Your task to perform on an android device: View the shopping cart on walmart.com. Search for "logitech g502" on walmart.com, select the first entry, and add it to the cart. Image 0: 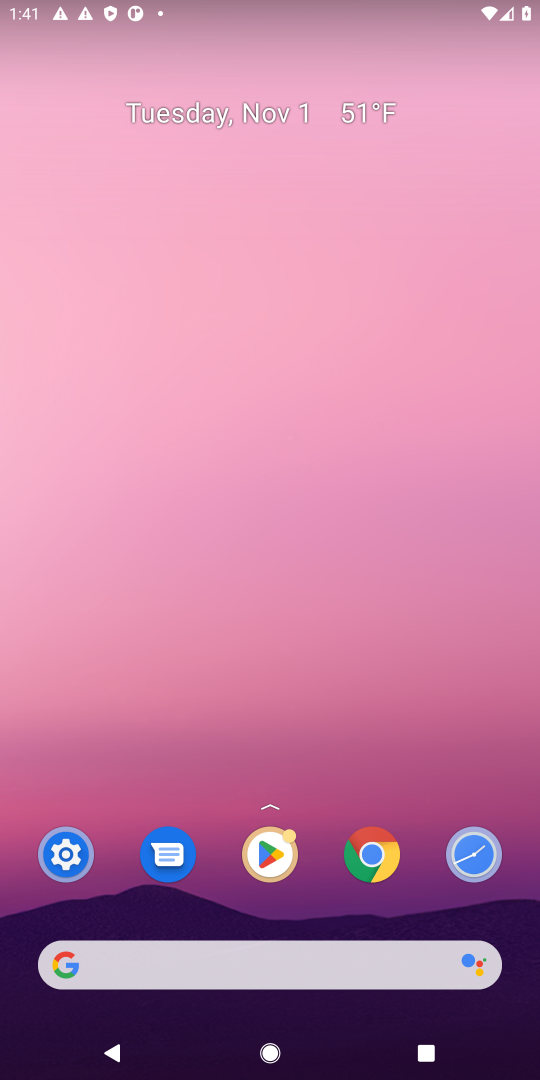
Step 0: click (189, 492)
Your task to perform on an android device: View the shopping cart on walmart.com. Search for "logitech g502" on walmart.com, select the first entry, and add it to the cart. Image 1: 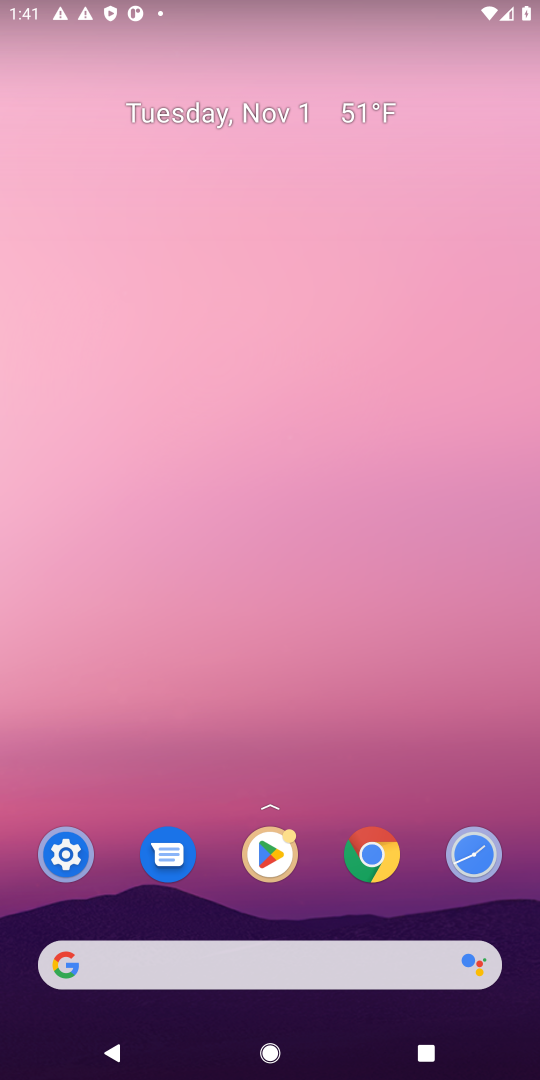
Step 1: click (237, 951)
Your task to perform on an android device: View the shopping cart on walmart.com. Search for "logitech g502" on walmart.com, select the first entry, and add it to the cart. Image 2: 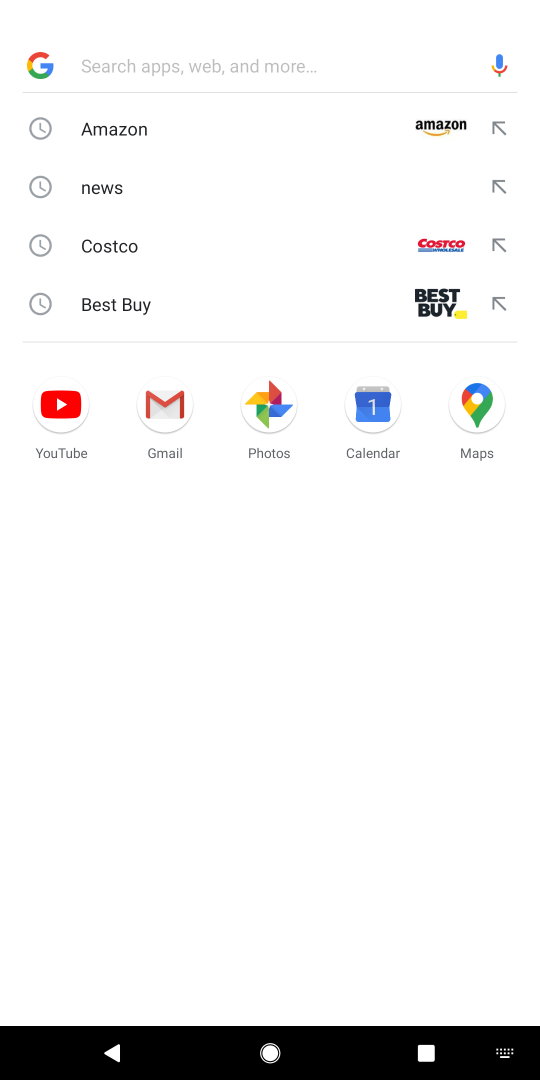
Step 2: click (460, 592)
Your task to perform on an android device: View the shopping cart on walmart.com. Search for "logitech g502" on walmart.com, select the first entry, and add it to the cart. Image 3: 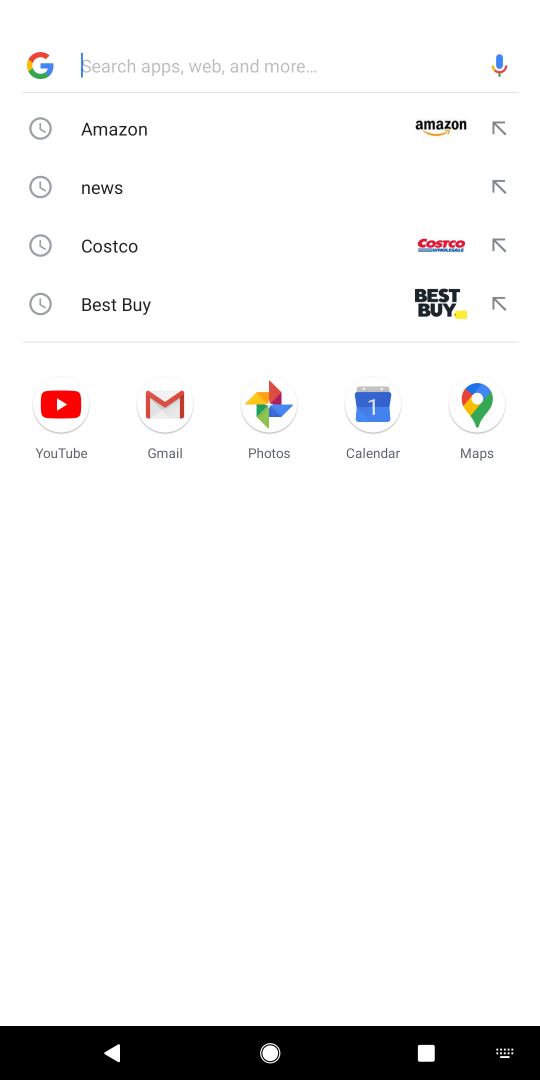
Step 3: type "walmart"
Your task to perform on an android device: View the shopping cart on walmart.com. Search for "logitech g502" on walmart.com, select the first entry, and add it to the cart. Image 4: 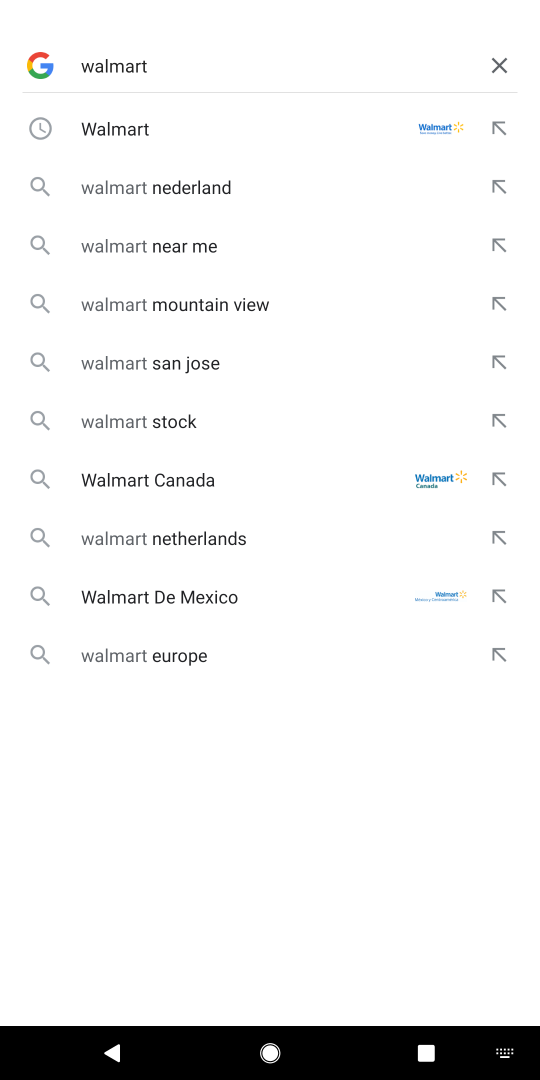
Step 4: click (96, 123)
Your task to perform on an android device: View the shopping cart on walmart.com. Search for "logitech g502" on walmart.com, select the first entry, and add it to the cart. Image 5: 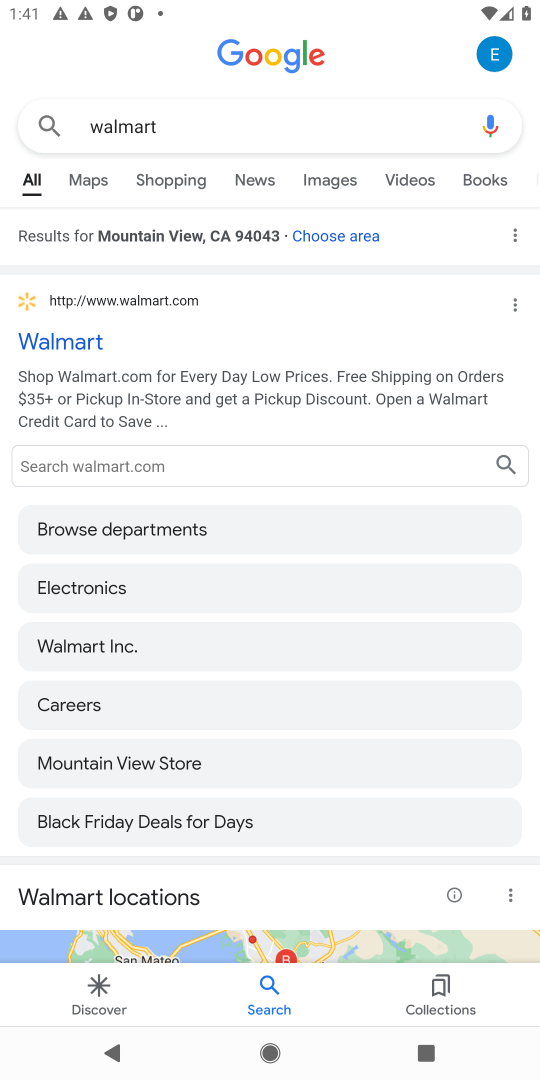
Step 5: click (68, 339)
Your task to perform on an android device: View the shopping cart on walmart.com. Search for "logitech g502" on walmart.com, select the first entry, and add it to the cart. Image 6: 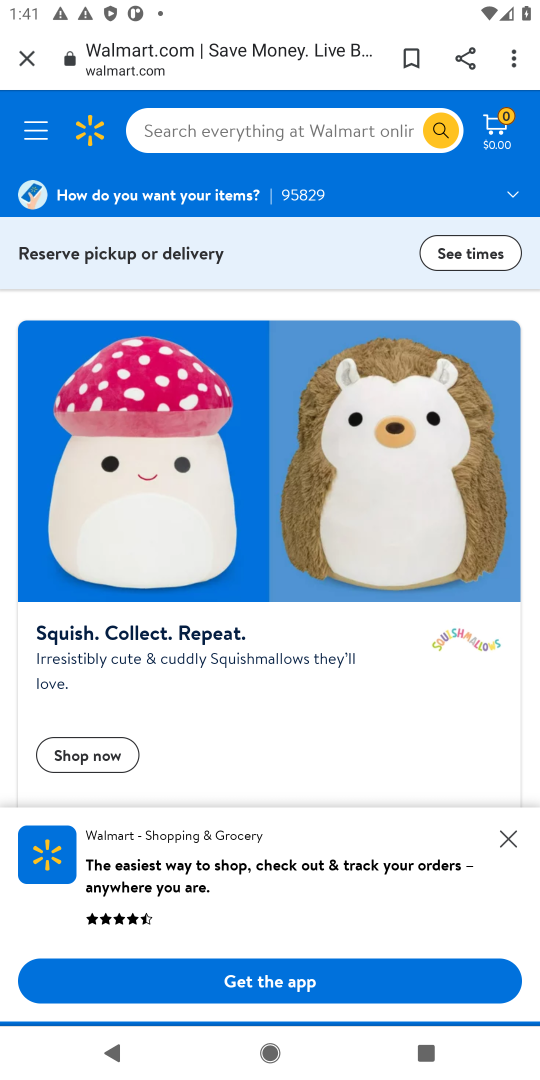
Step 6: click (235, 129)
Your task to perform on an android device: View the shopping cart on walmart.com. Search for "logitech g502" on walmart.com, select the first entry, and add it to the cart. Image 7: 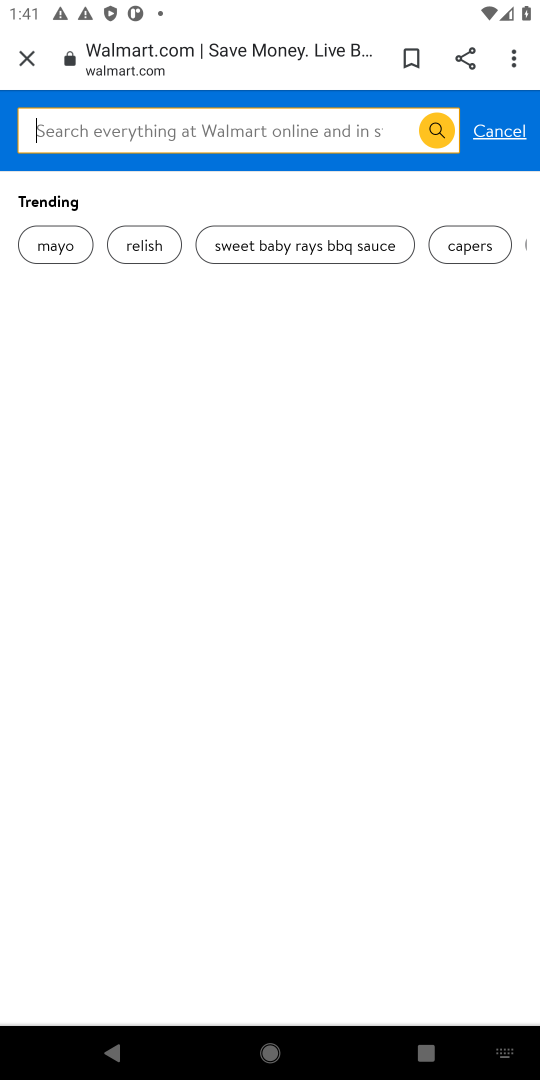
Step 7: type "logitech g502"
Your task to perform on an android device: View the shopping cart on walmart.com. Search for "logitech g502" on walmart.com, select the first entry, and add it to the cart. Image 8: 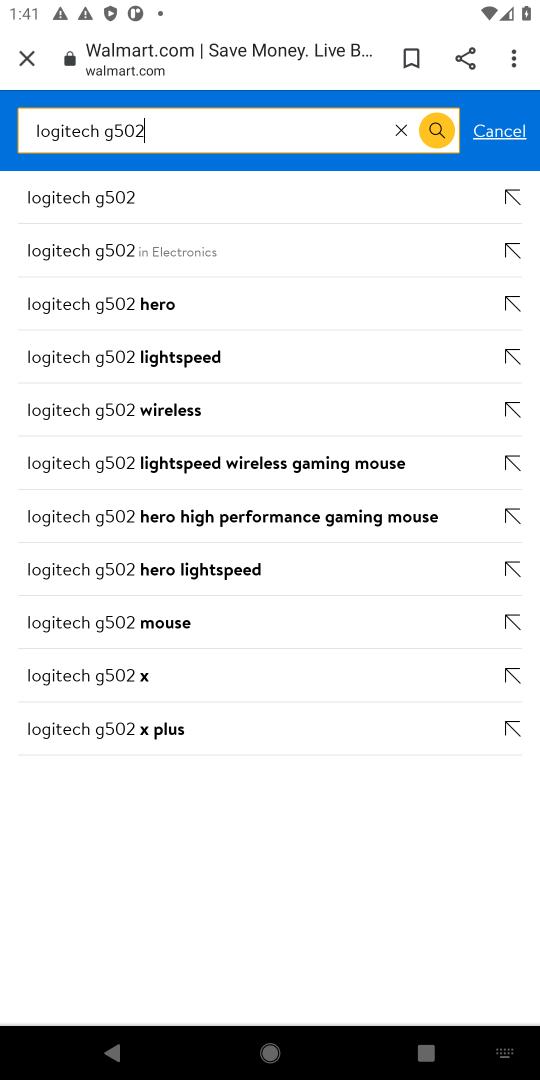
Step 8: click (107, 191)
Your task to perform on an android device: View the shopping cart on walmart.com. Search for "logitech g502" on walmart.com, select the first entry, and add it to the cart. Image 9: 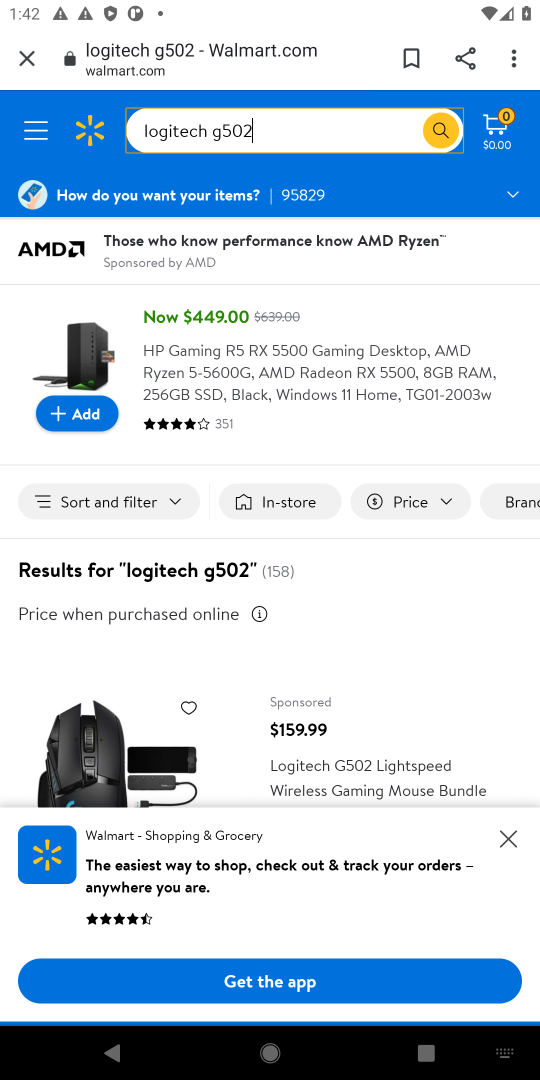
Step 9: click (504, 833)
Your task to perform on an android device: View the shopping cart on walmart.com. Search for "logitech g502" on walmart.com, select the first entry, and add it to the cart. Image 10: 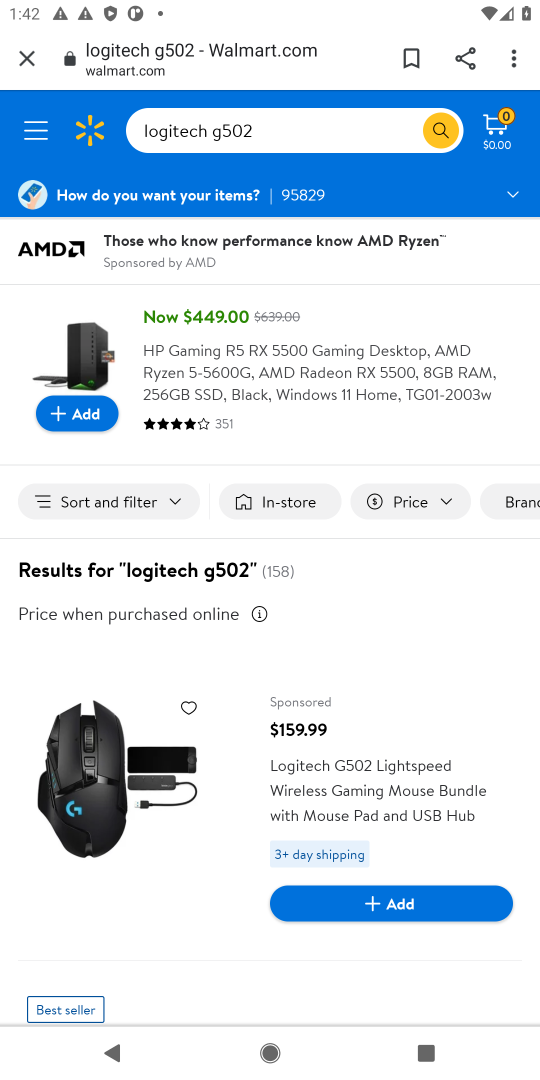
Step 10: drag from (424, 657) to (401, 430)
Your task to perform on an android device: View the shopping cart on walmart.com. Search for "logitech g502" on walmart.com, select the first entry, and add it to the cart. Image 11: 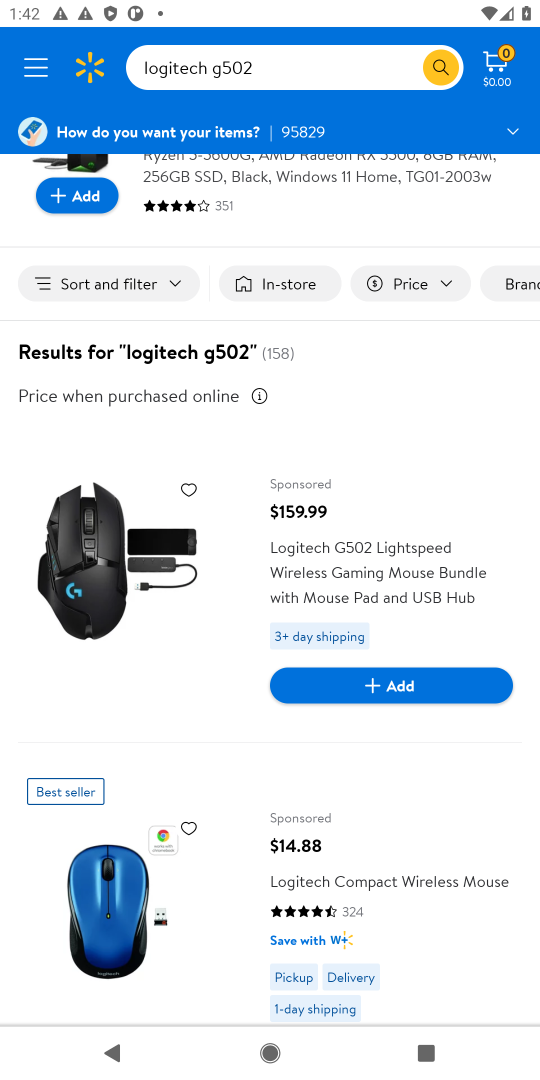
Step 11: click (388, 686)
Your task to perform on an android device: View the shopping cart on walmart.com. Search for "logitech g502" on walmart.com, select the first entry, and add it to the cart. Image 12: 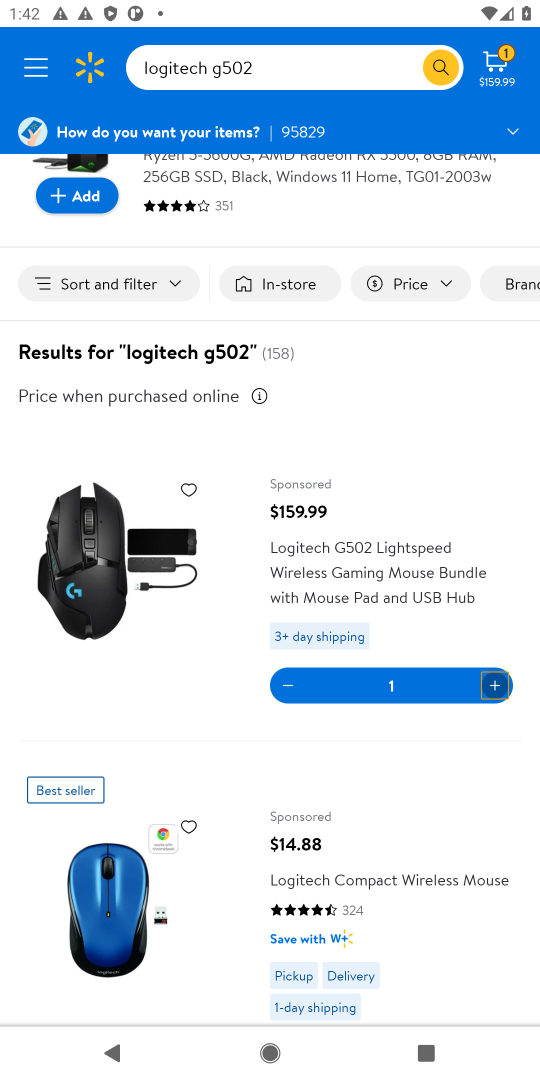
Step 12: click (503, 54)
Your task to perform on an android device: View the shopping cart on walmart.com. Search for "logitech g502" on walmart.com, select the first entry, and add it to the cart. Image 13: 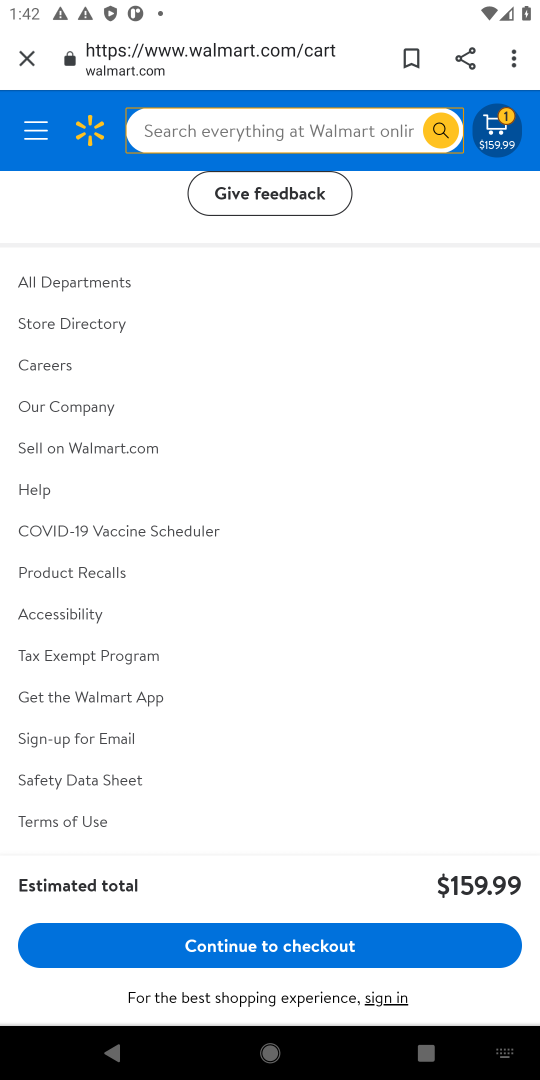
Step 13: task complete